Your task to perform on an android device: Open the stopwatch Image 0: 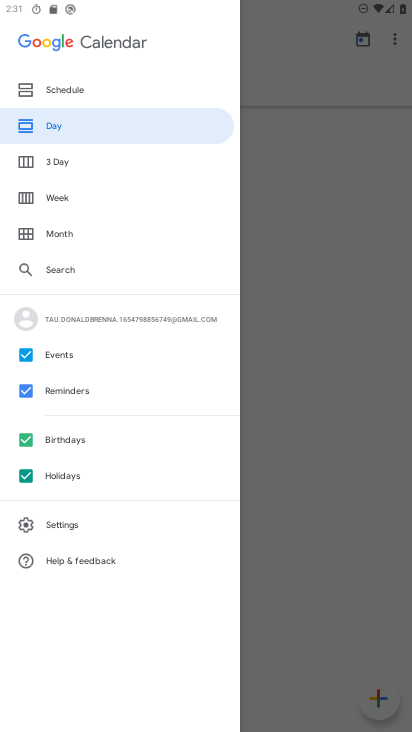
Step 0: press home button
Your task to perform on an android device: Open the stopwatch Image 1: 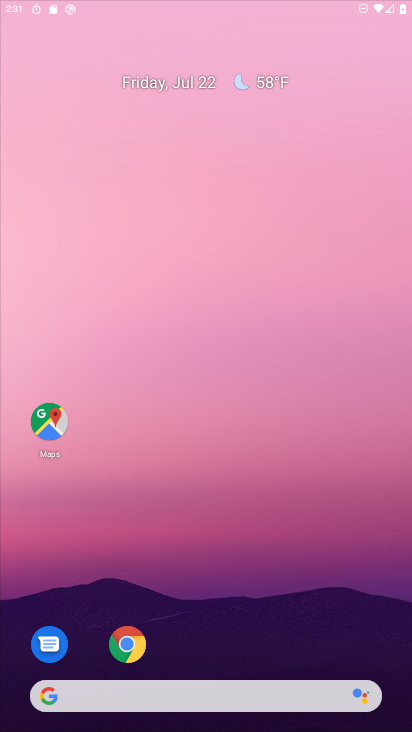
Step 1: drag from (238, 623) to (199, 156)
Your task to perform on an android device: Open the stopwatch Image 2: 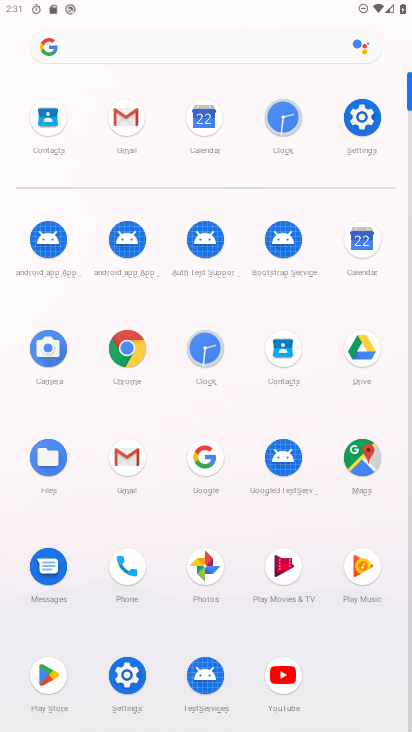
Step 2: click (272, 116)
Your task to perform on an android device: Open the stopwatch Image 3: 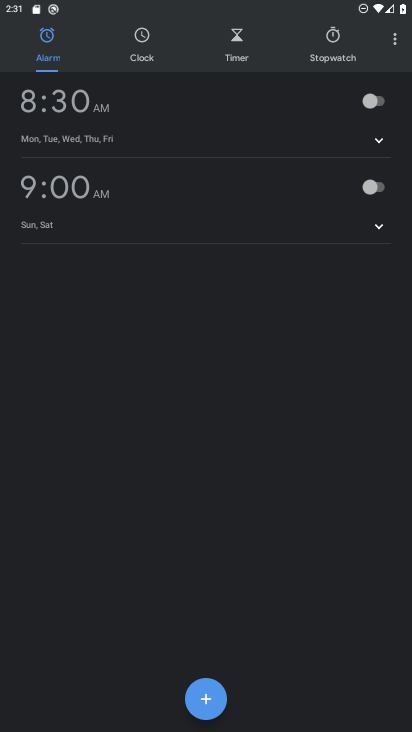
Step 3: click (326, 50)
Your task to perform on an android device: Open the stopwatch Image 4: 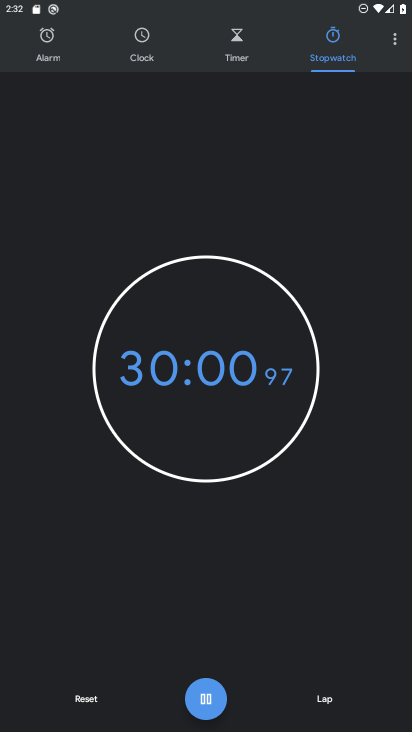
Step 4: task complete